Your task to perform on an android device: turn on wifi Image 0: 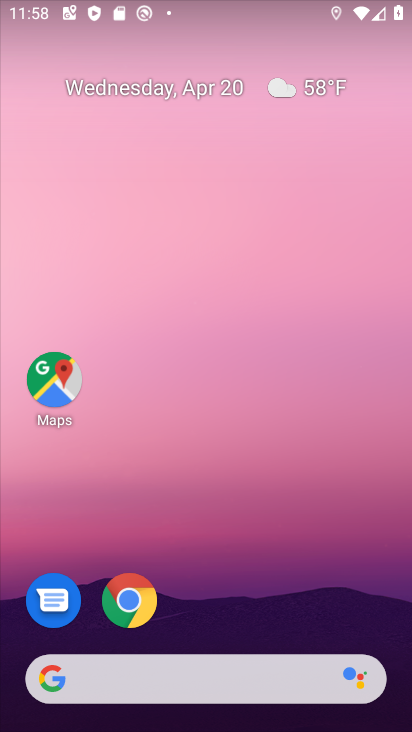
Step 0: drag from (218, 613) to (170, 22)
Your task to perform on an android device: turn on wifi Image 1: 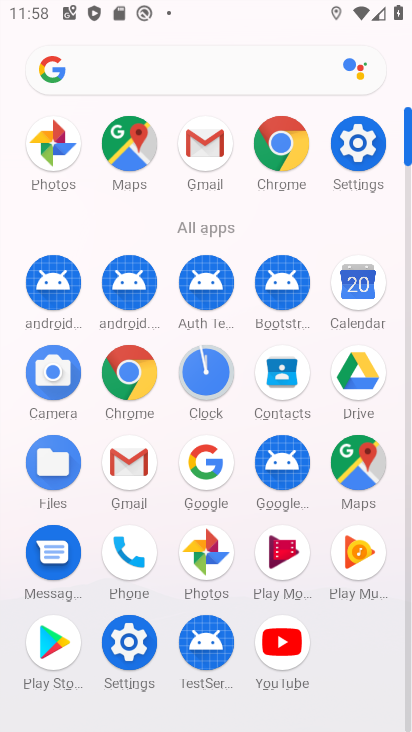
Step 1: click (361, 143)
Your task to perform on an android device: turn on wifi Image 2: 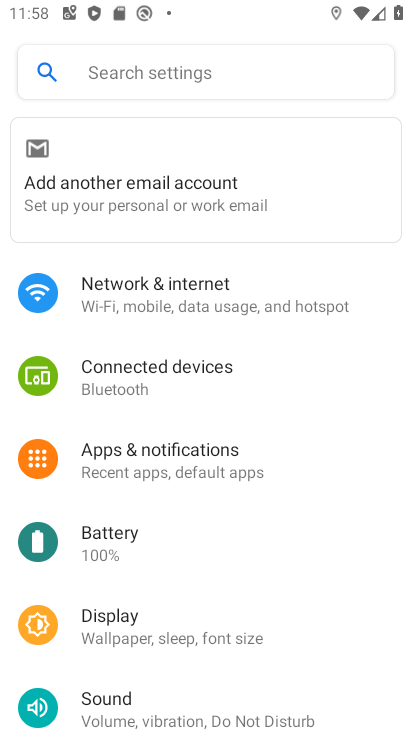
Step 2: click (234, 306)
Your task to perform on an android device: turn on wifi Image 3: 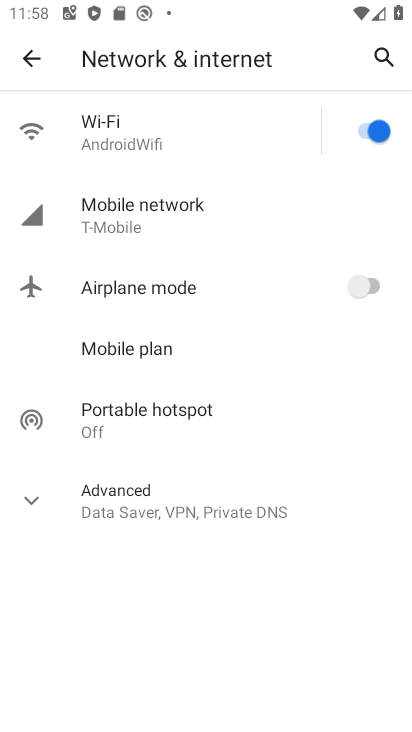
Step 3: click (118, 150)
Your task to perform on an android device: turn on wifi Image 4: 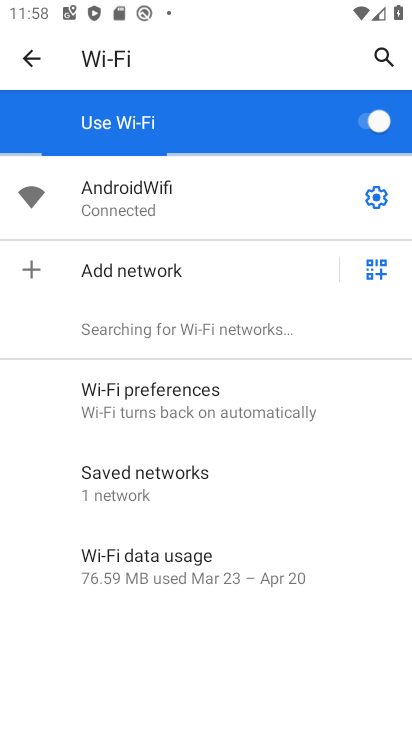
Step 4: task complete